Your task to perform on an android device: Add alienware area 51 to the cart on newegg Image 0: 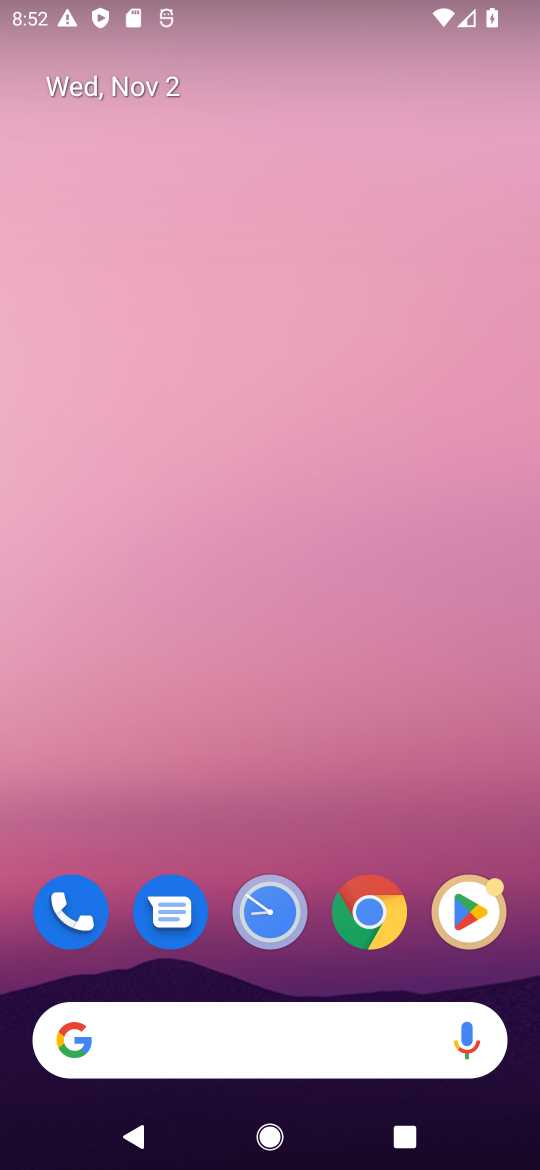
Step 0: drag from (347, 1084) to (377, 127)
Your task to perform on an android device: Add alienware area 51 to the cart on newegg Image 1: 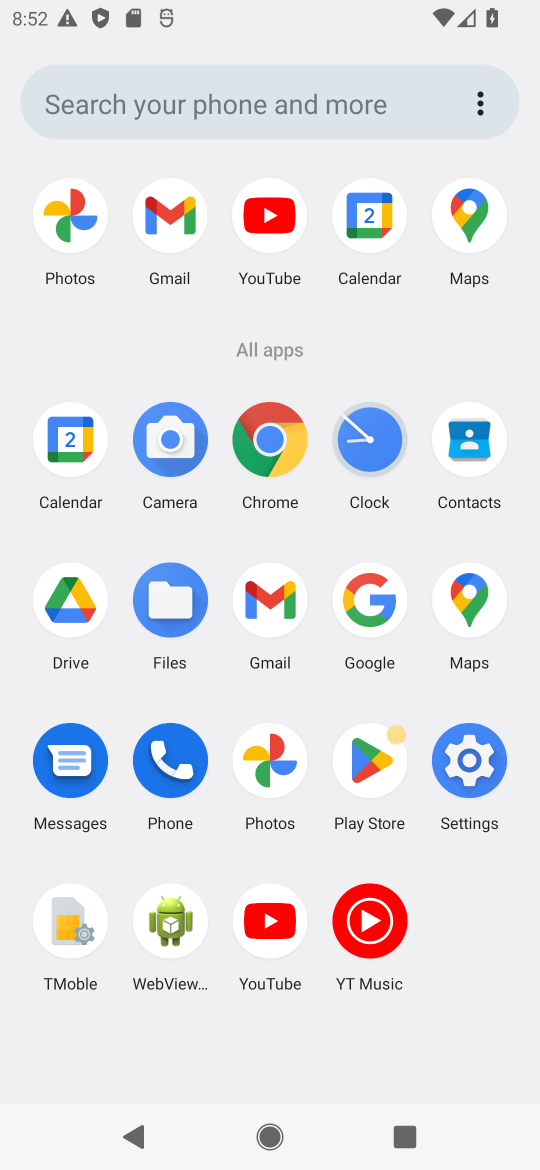
Step 1: click (262, 429)
Your task to perform on an android device: Add alienware area 51 to the cart on newegg Image 2: 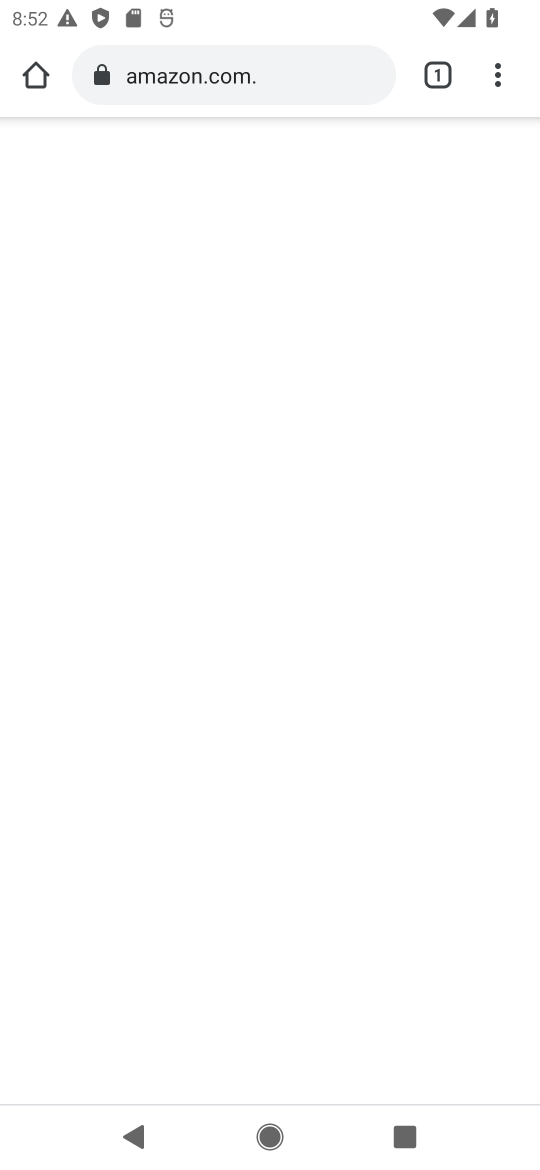
Step 2: click (283, 73)
Your task to perform on an android device: Add alienware area 51 to the cart on newegg Image 3: 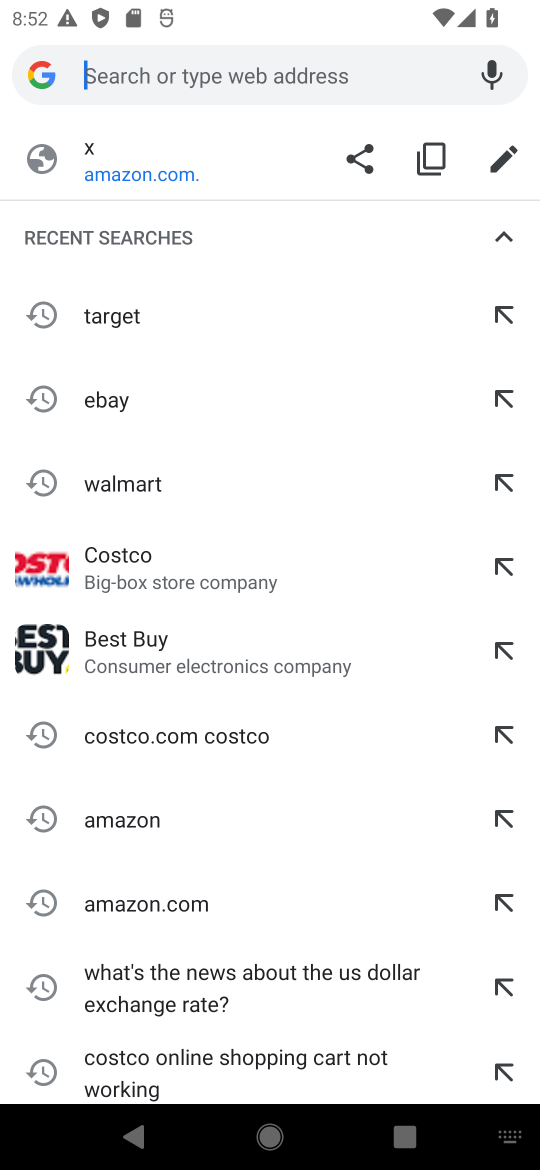
Step 3: type "newegg"
Your task to perform on an android device: Add alienware area 51 to the cart on newegg Image 4: 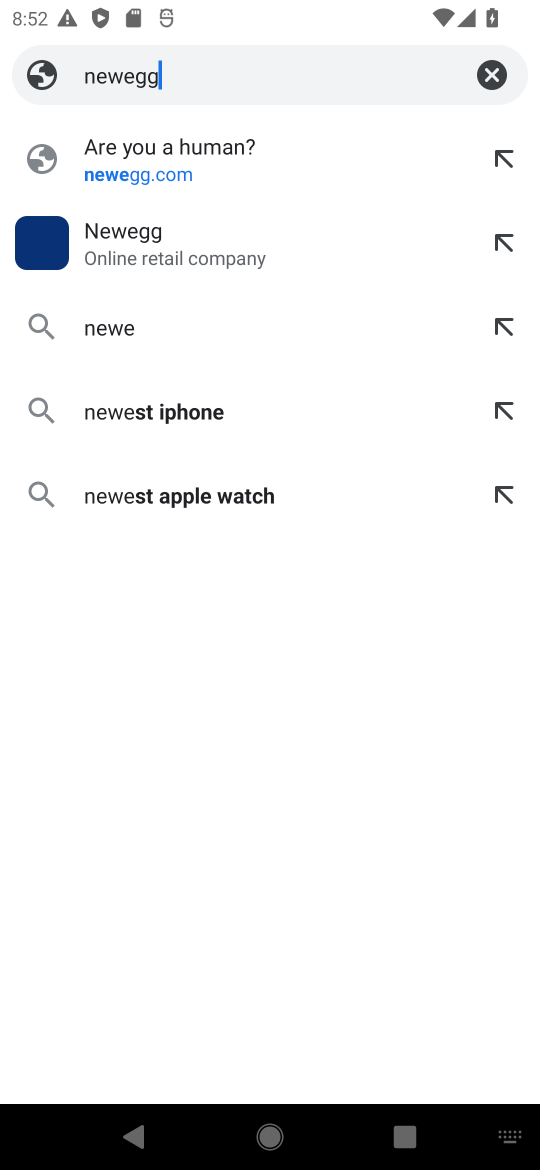
Step 4: type ""
Your task to perform on an android device: Add alienware area 51 to the cart on newegg Image 5: 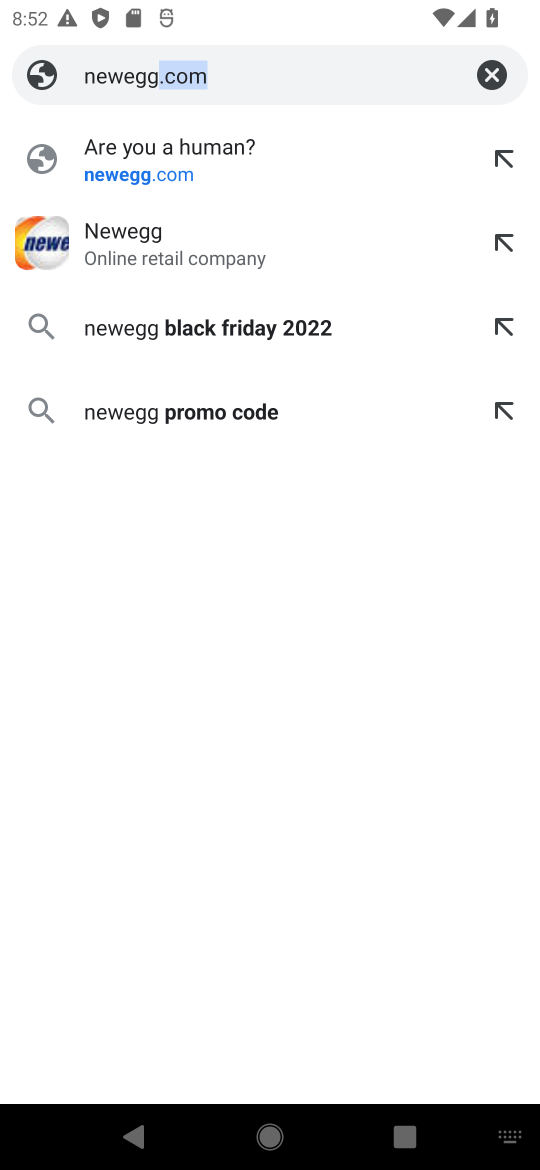
Step 5: click (142, 172)
Your task to perform on an android device: Add alienware area 51 to the cart on newegg Image 6: 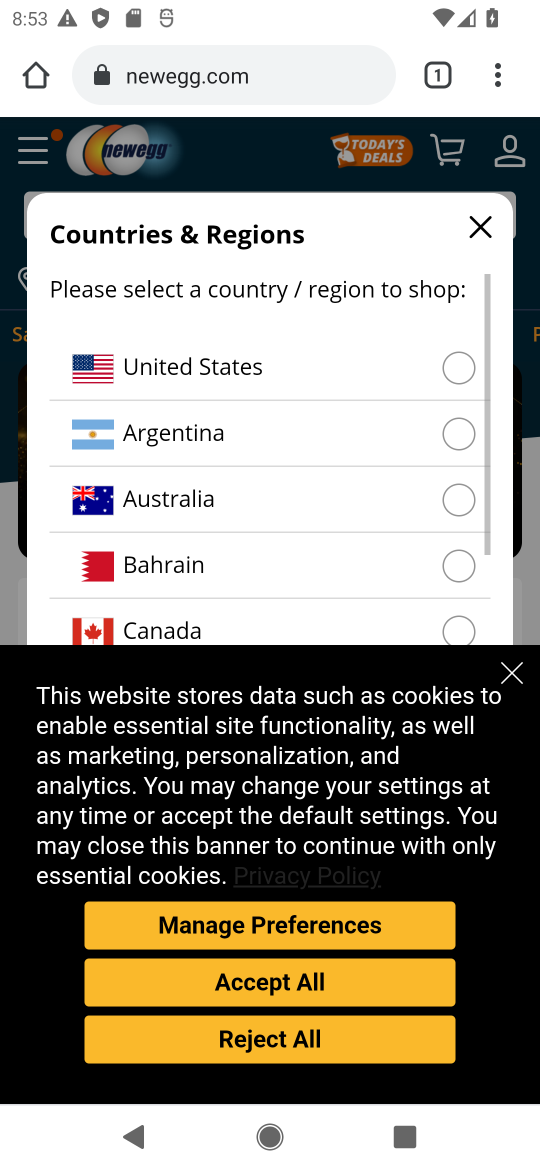
Step 6: click (477, 223)
Your task to perform on an android device: Add alienware area 51 to the cart on newegg Image 7: 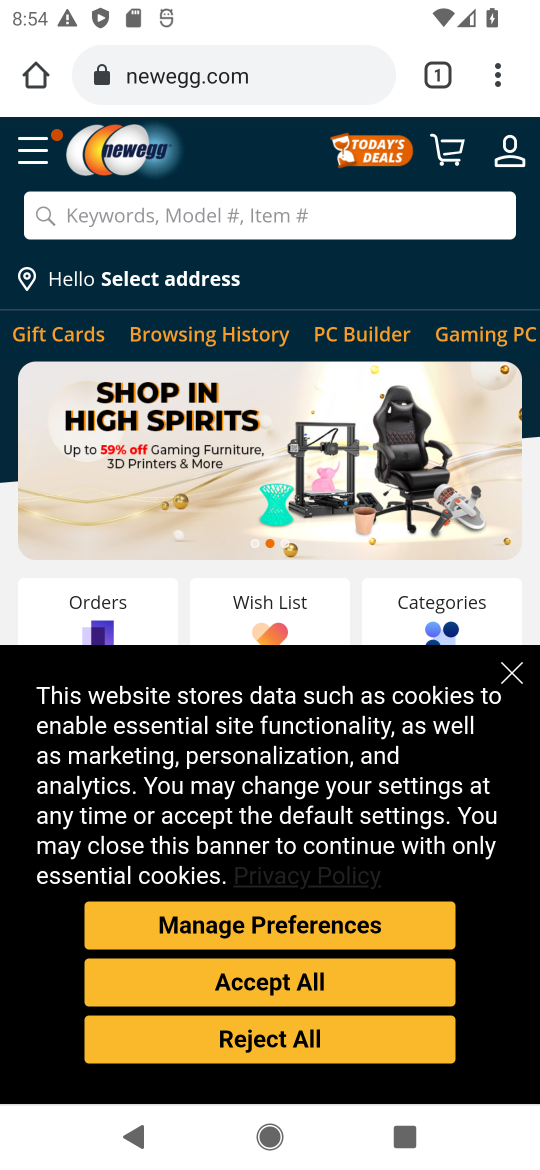
Step 7: click (250, 213)
Your task to perform on an android device: Add alienware area 51 to the cart on newegg Image 8: 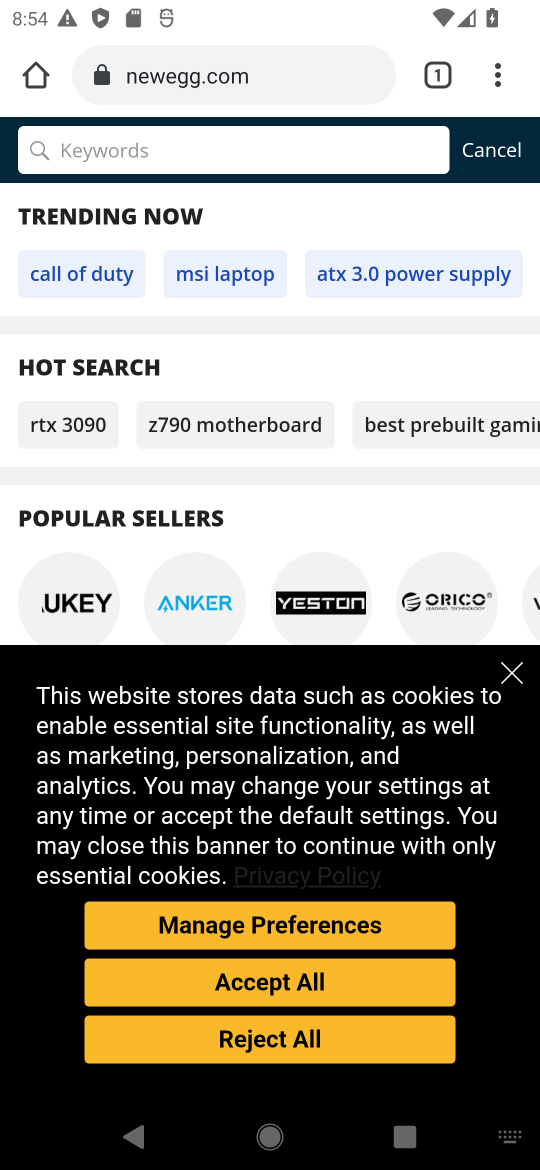
Step 8: click (110, 151)
Your task to perform on an android device: Add alienware area 51 to the cart on newegg Image 9: 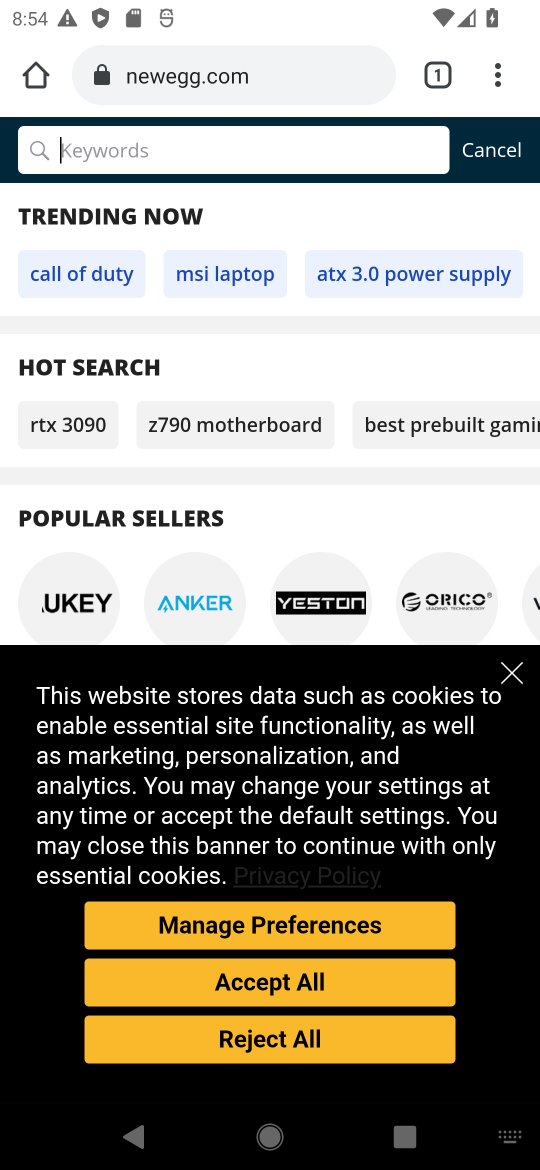
Step 9: type " alienware area 51 "
Your task to perform on an android device: Add alienware area 51 to the cart on newegg Image 10: 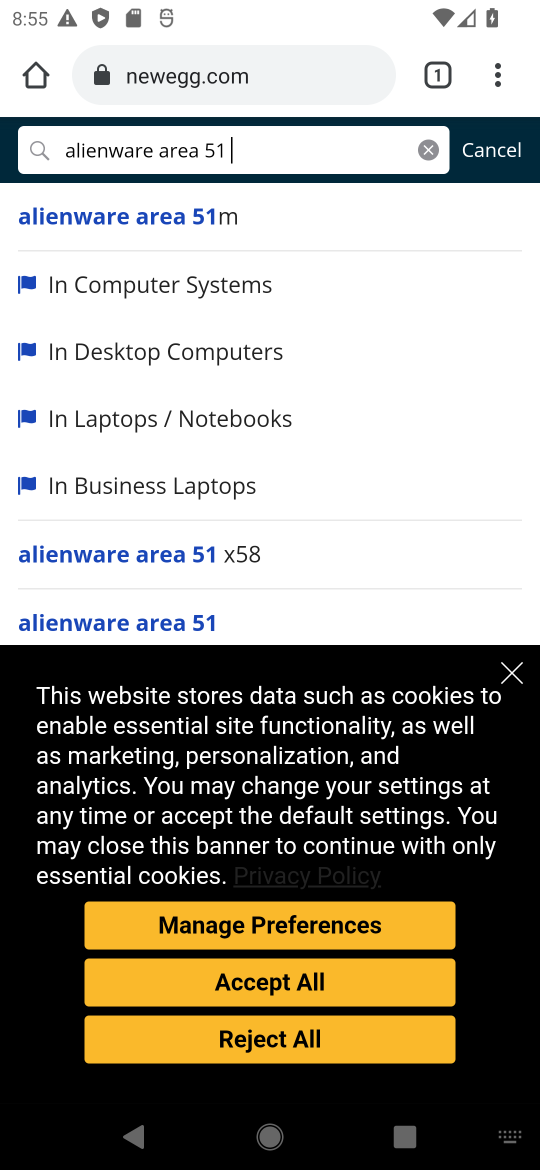
Step 10: click (508, 663)
Your task to perform on an android device: Add alienware area 51 to the cart on newegg Image 11: 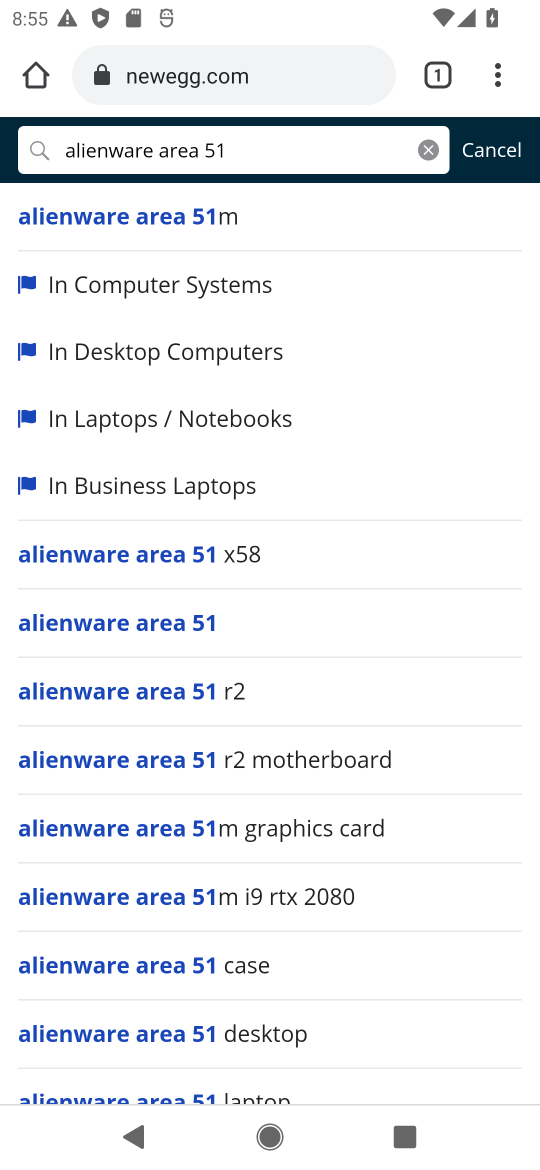
Step 11: click (114, 214)
Your task to perform on an android device: Add alienware area 51 to the cart on newegg Image 12: 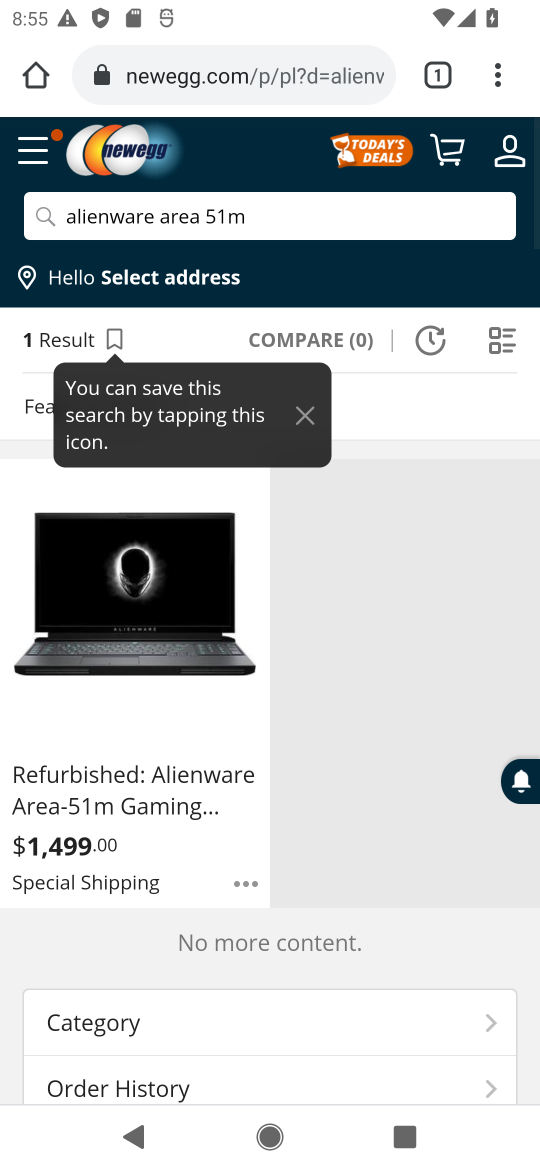
Step 12: click (144, 606)
Your task to perform on an android device: Add alienware area 51 to the cart on newegg Image 13: 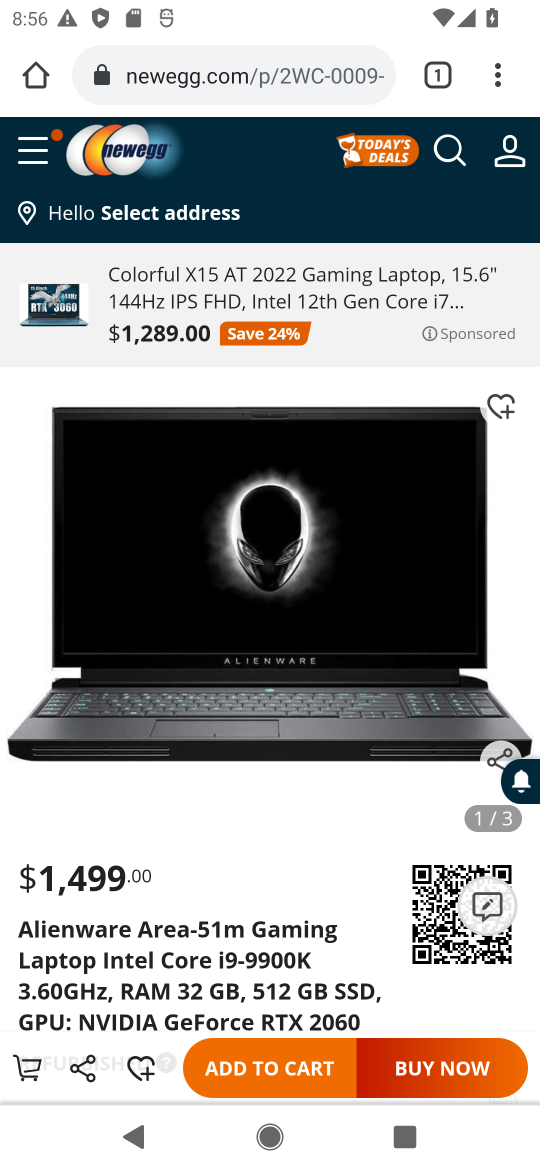
Step 13: click (274, 1052)
Your task to perform on an android device: Add alienware area 51 to the cart on newegg Image 14: 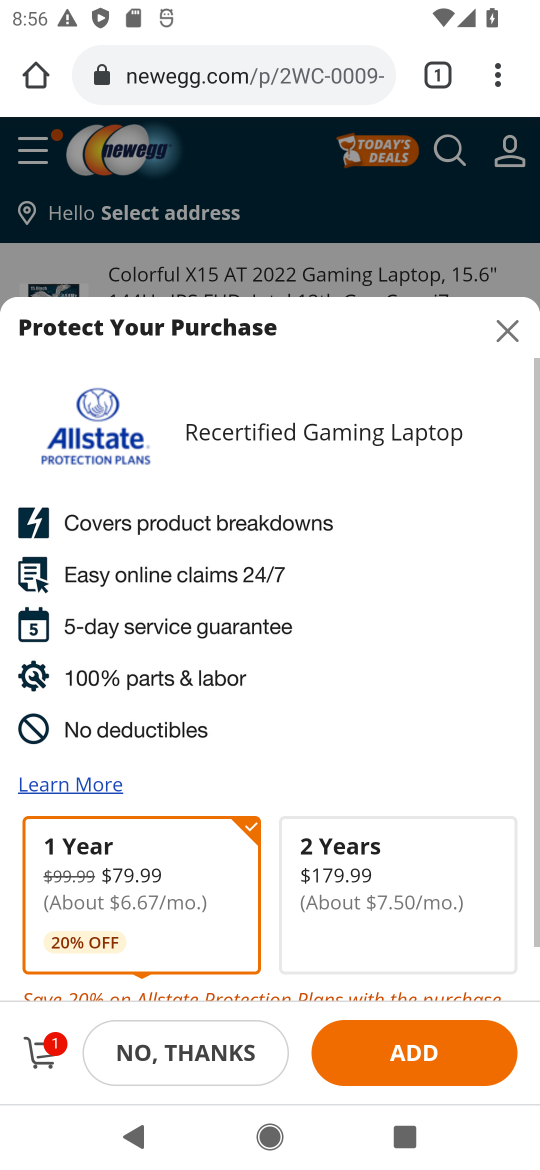
Step 14: task complete